Your task to perform on an android device: Add apple airpods to the cart on costco.com Image 0: 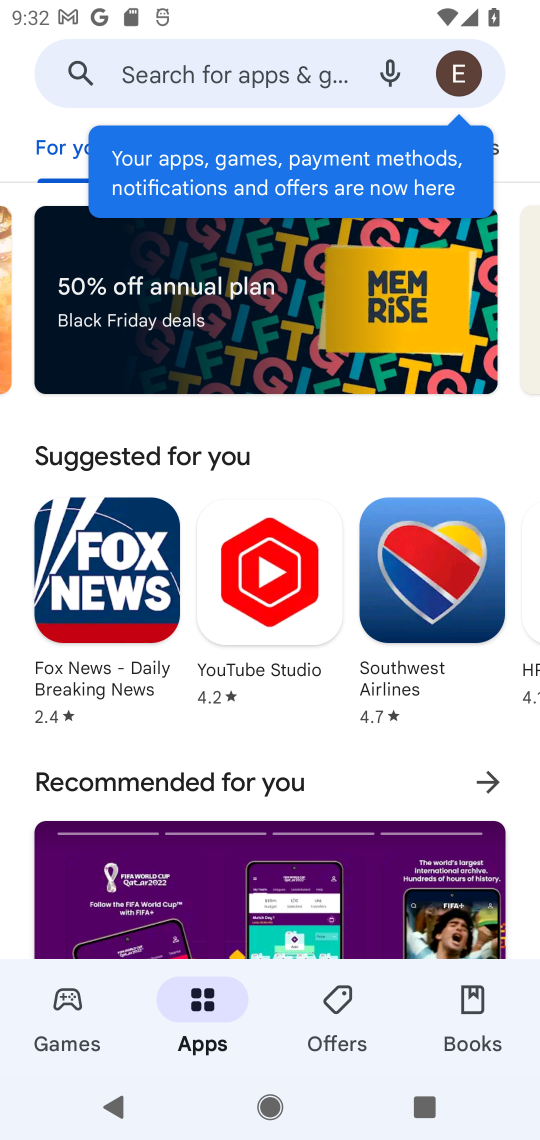
Step 0: press home button
Your task to perform on an android device: Add apple airpods to the cart on costco.com Image 1: 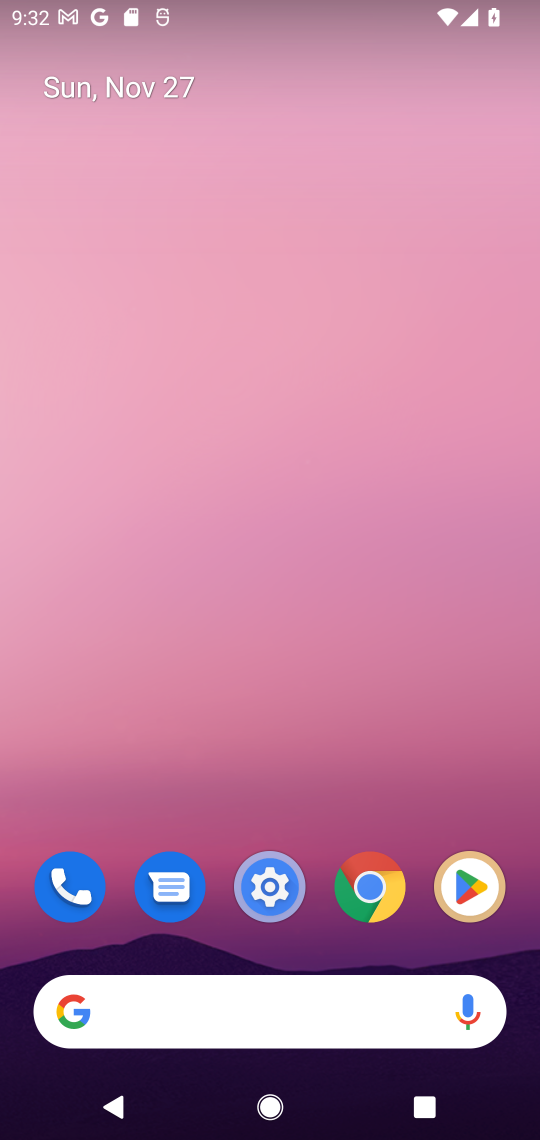
Step 1: click (215, 998)
Your task to perform on an android device: Add apple airpods to the cart on costco.com Image 2: 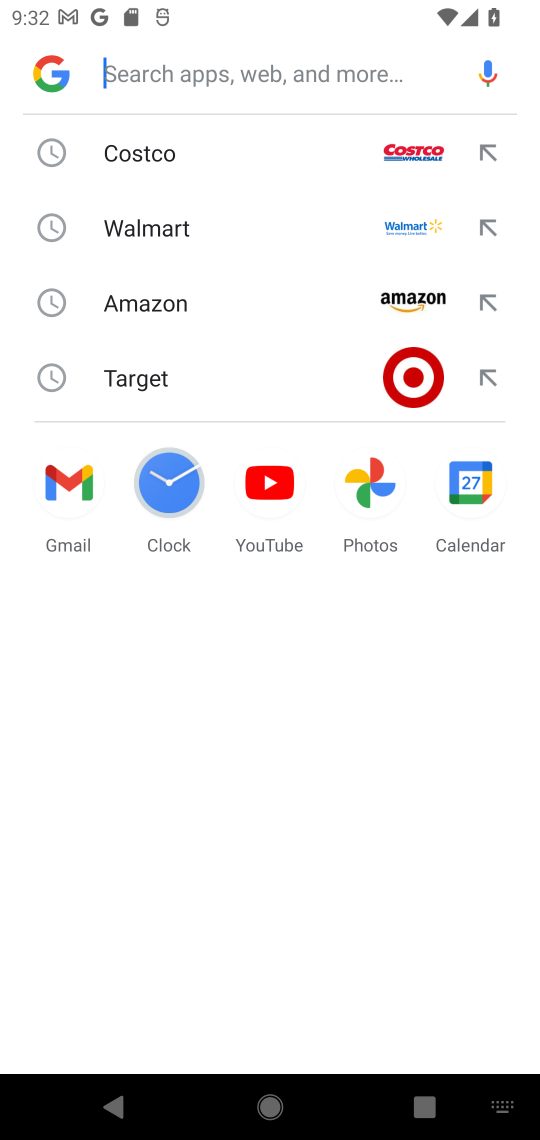
Step 2: click (125, 132)
Your task to perform on an android device: Add apple airpods to the cart on costco.com Image 3: 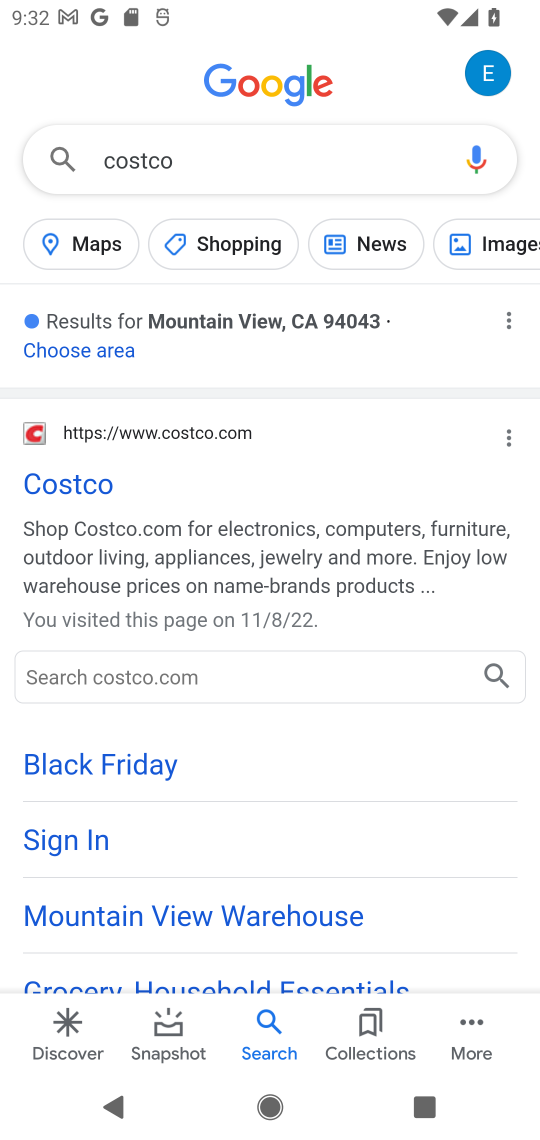
Step 3: click (86, 476)
Your task to perform on an android device: Add apple airpods to the cart on costco.com Image 4: 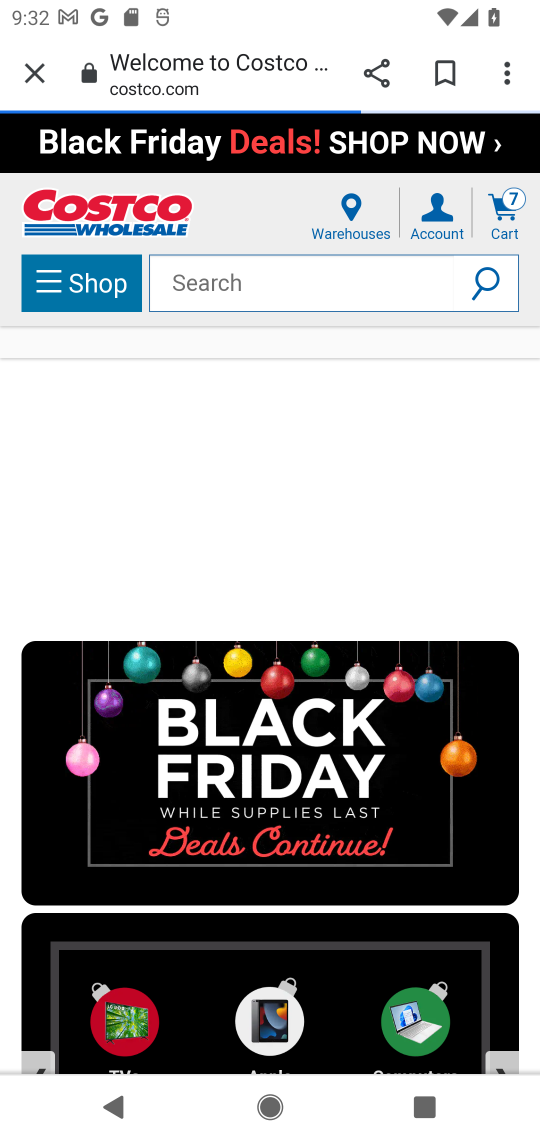
Step 4: click (334, 287)
Your task to perform on an android device: Add apple airpods to the cart on costco.com Image 5: 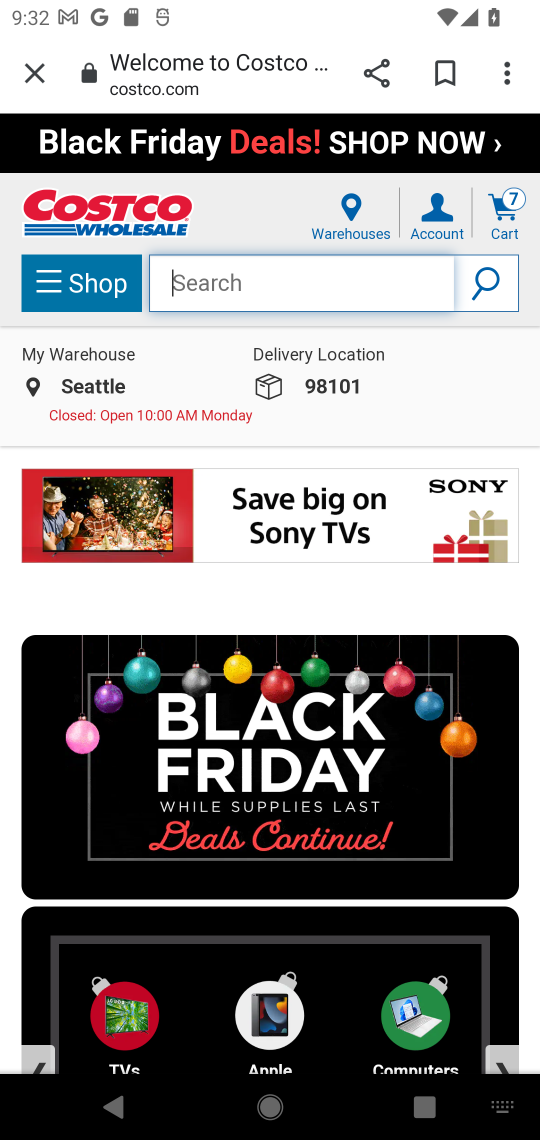
Step 5: type "apple airpod"
Your task to perform on an android device: Add apple airpods to the cart on costco.com Image 6: 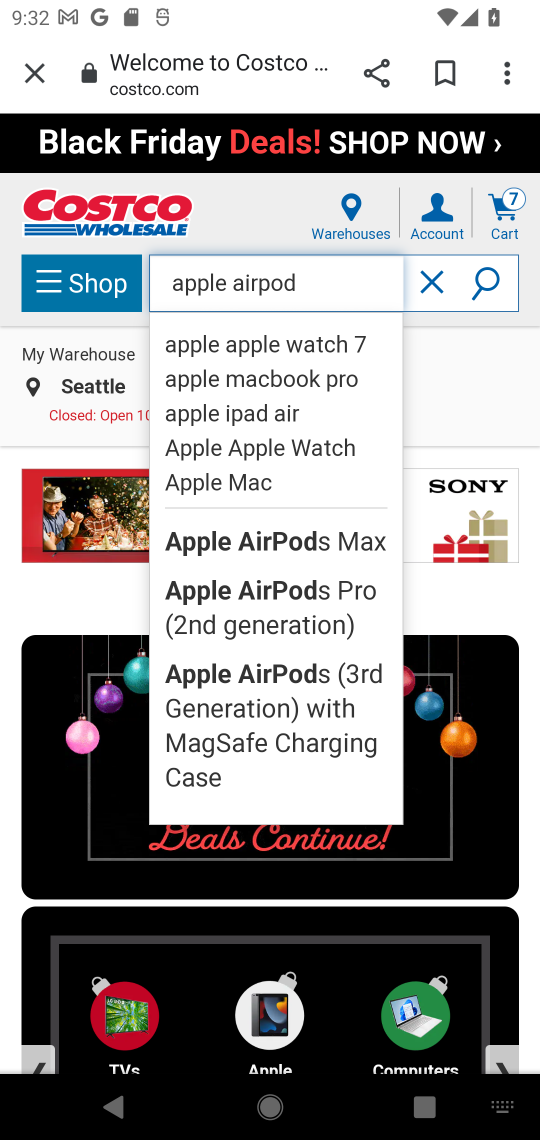
Step 6: click (470, 286)
Your task to perform on an android device: Add apple airpods to the cart on costco.com Image 7: 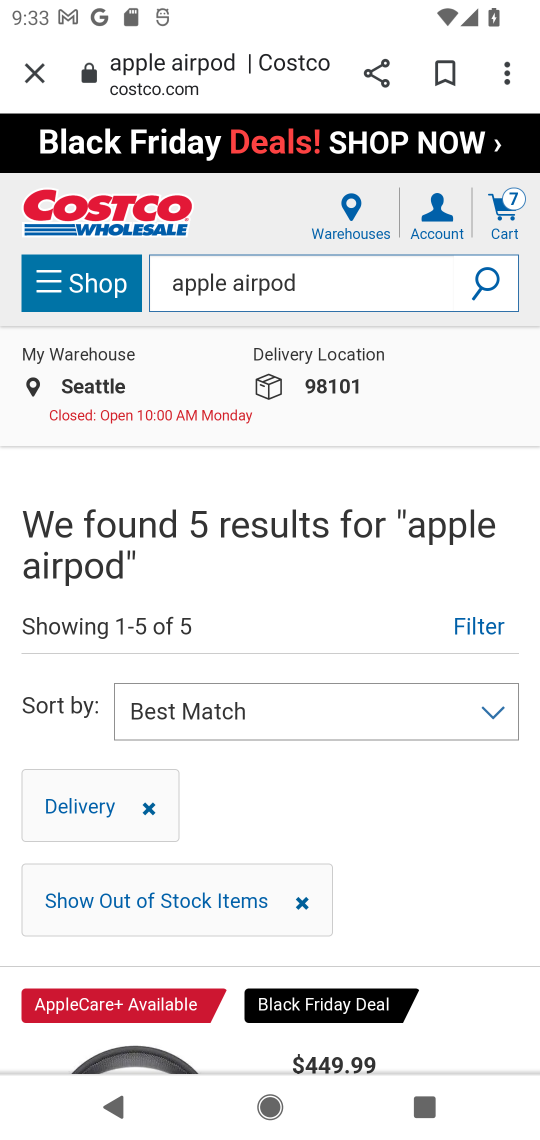
Step 7: drag from (384, 862) to (402, 397)
Your task to perform on an android device: Add apple airpods to the cart on costco.com Image 8: 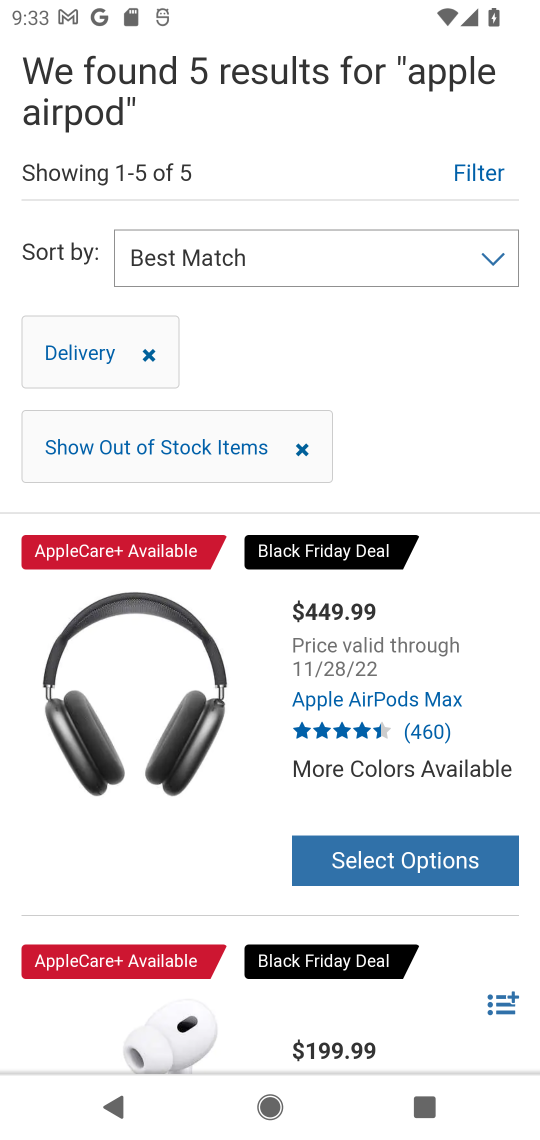
Step 8: click (413, 846)
Your task to perform on an android device: Add apple airpods to the cart on costco.com Image 9: 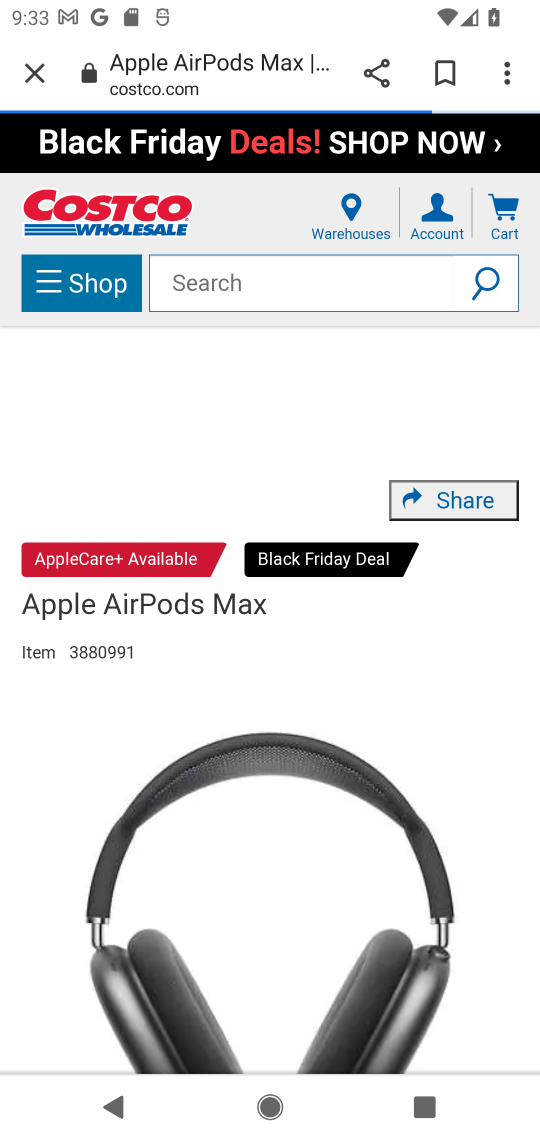
Step 9: drag from (413, 846) to (353, 485)
Your task to perform on an android device: Add apple airpods to the cart on costco.com Image 10: 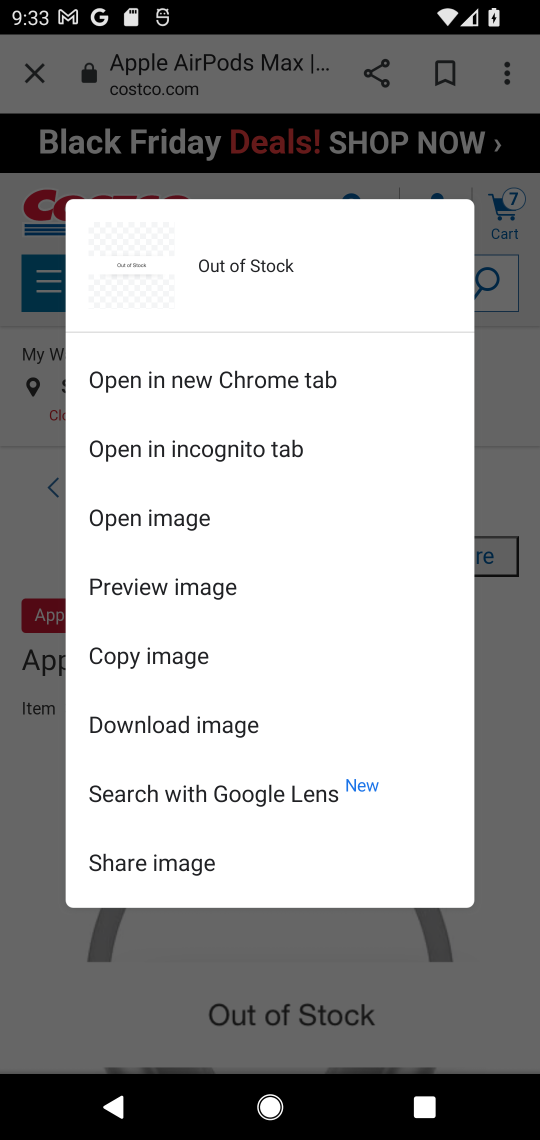
Step 10: click (353, 485)
Your task to perform on an android device: Add apple airpods to the cart on costco.com Image 11: 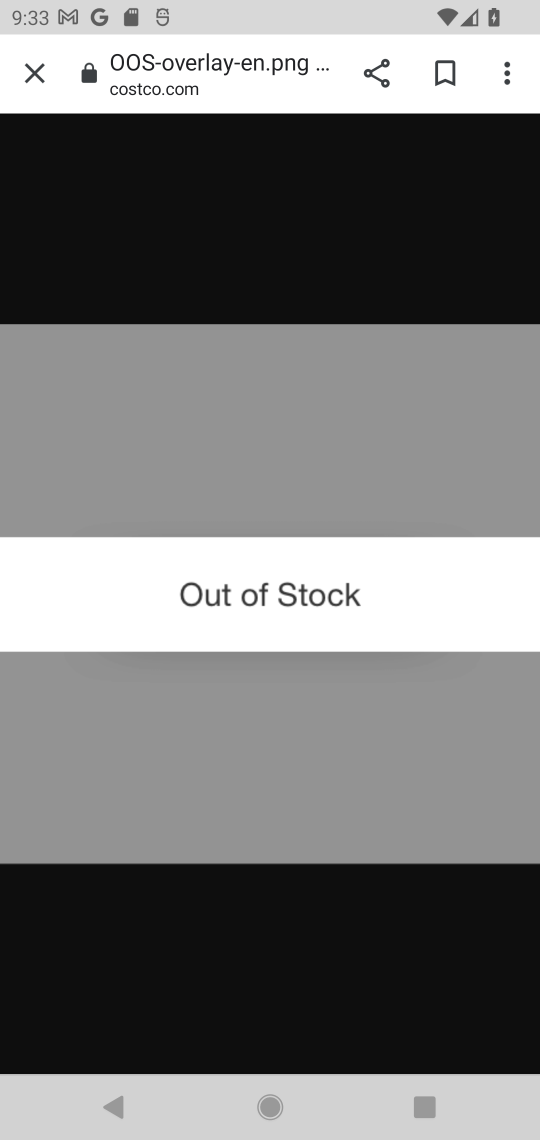
Step 11: click (490, 496)
Your task to perform on an android device: Add apple airpods to the cart on costco.com Image 12: 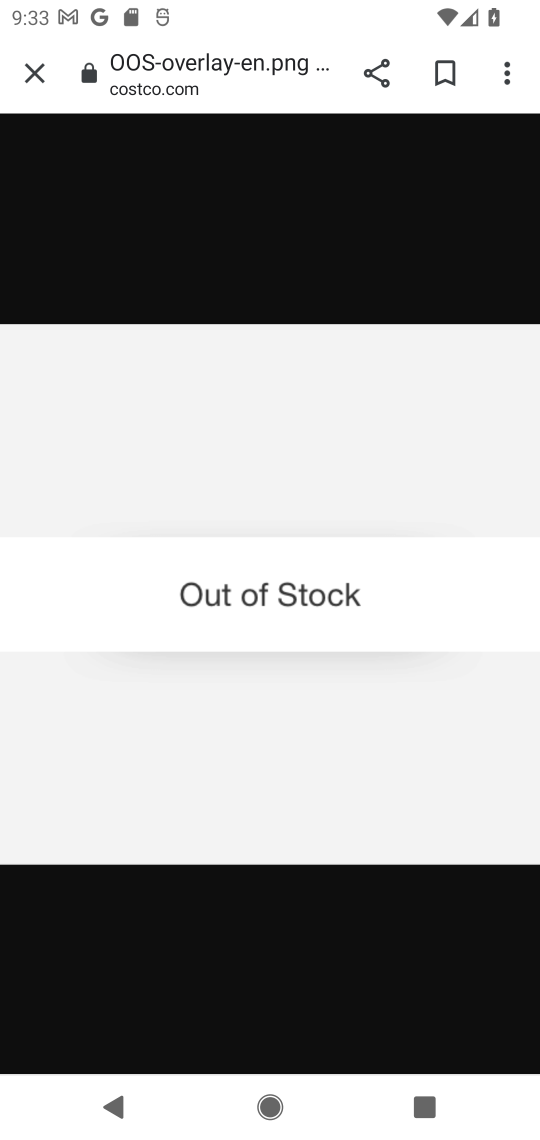
Step 12: task complete